Your task to perform on an android device: Add "sony triple a" to the cart on newegg, then select checkout. Image 0: 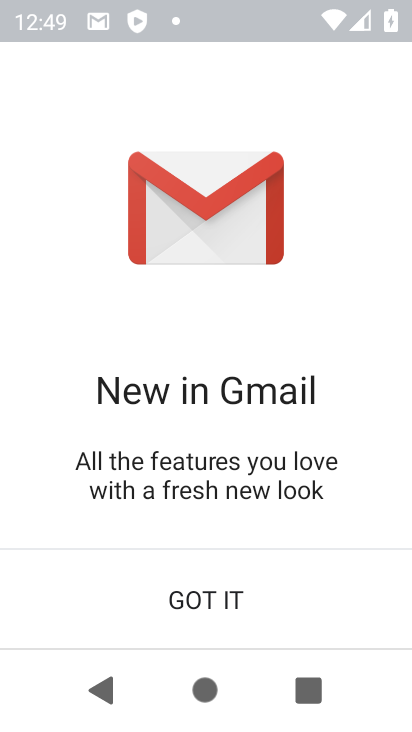
Step 0: click (0, 0)
Your task to perform on an android device: Add "sony triple a" to the cart on newegg, then select checkout. Image 1: 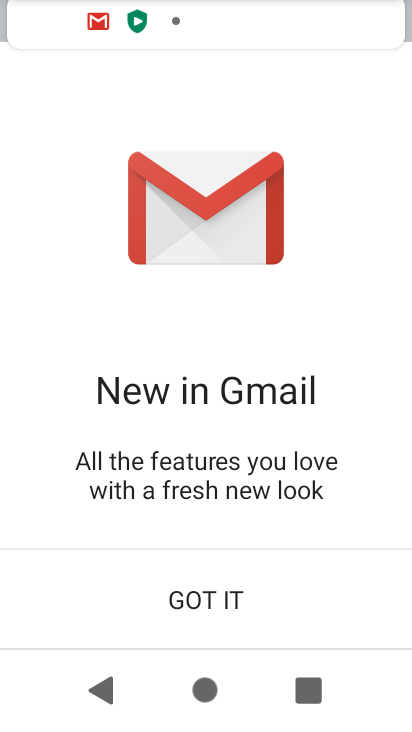
Step 1: press home button
Your task to perform on an android device: Add "sony triple a" to the cart on newegg, then select checkout. Image 2: 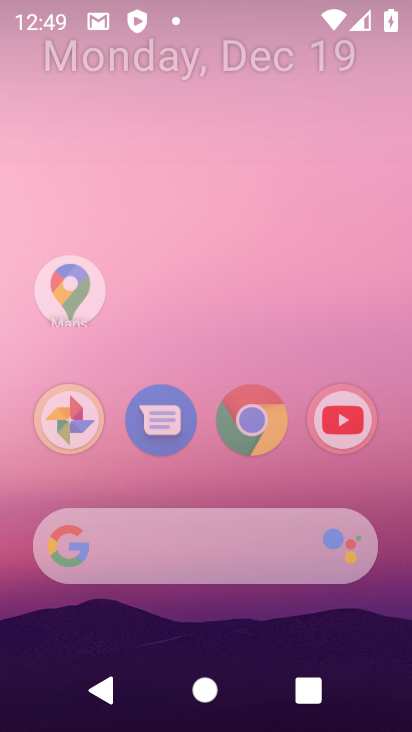
Step 2: drag from (0, 0) to (338, 419)
Your task to perform on an android device: Add "sony triple a" to the cart on newegg, then select checkout. Image 3: 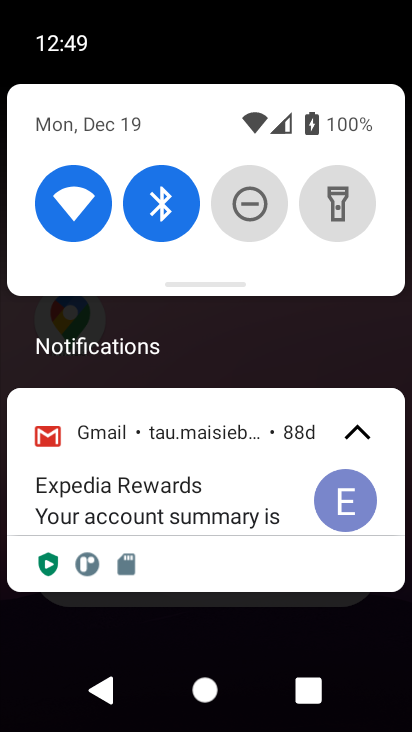
Step 3: click (110, 679)
Your task to perform on an android device: Add "sony triple a" to the cart on newegg, then select checkout. Image 4: 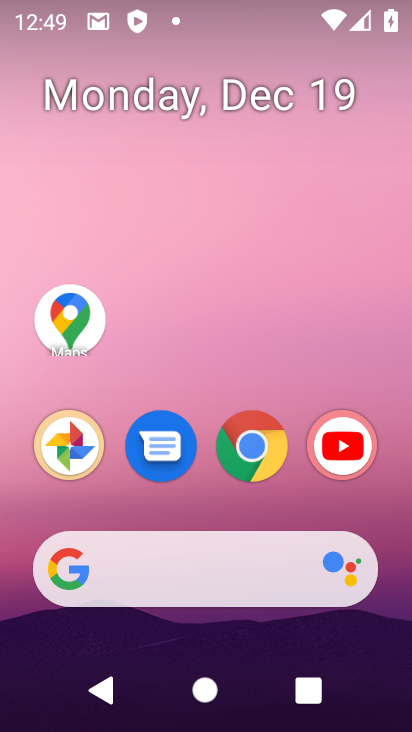
Step 4: click (242, 436)
Your task to perform on an android device: Add "sony triple a" to the cart on newegg, then select checkout. Image 5: 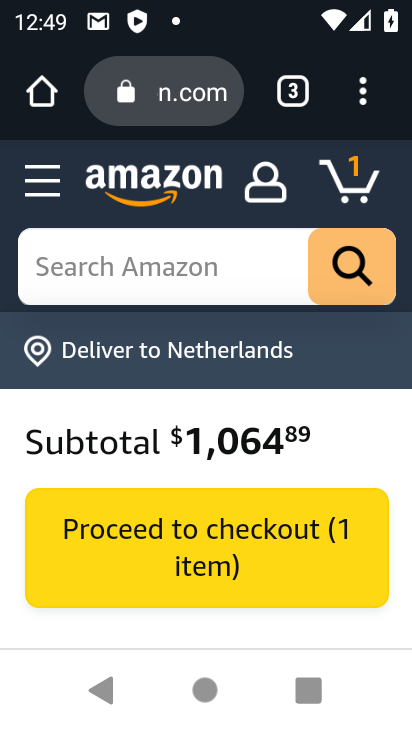
Step 5: click (223, 253)
Your task to perform on an android device: Add "sony triple a" to the cart on newegg, then select checkout. Image 6: 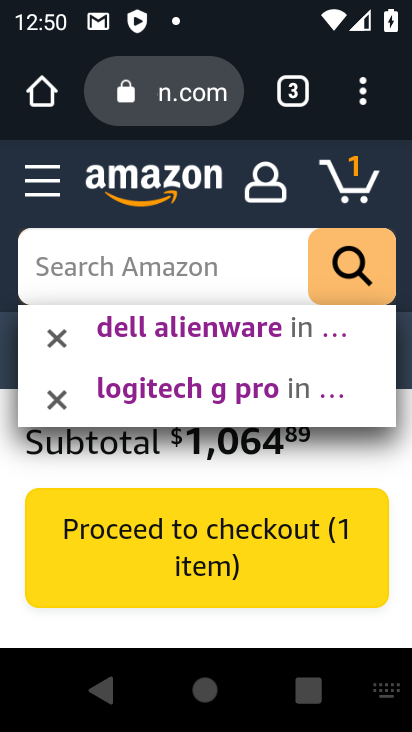
Step 6: click (224, 317)
Your task to perform on an android device: Add "sony triple a" to the cart on newegg, then select checkout. Image 7: 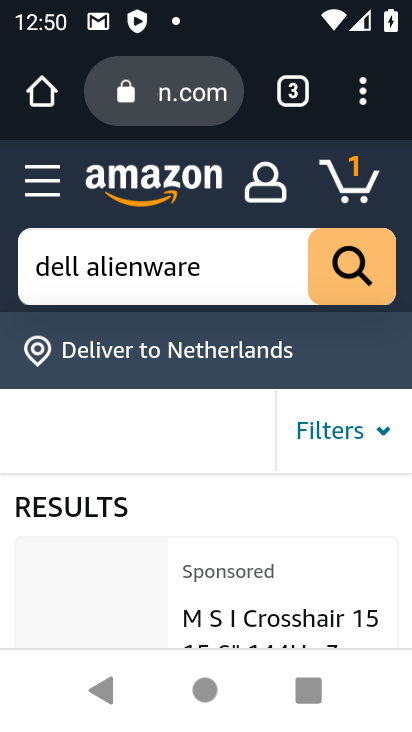
Step 7: drag from (174, 512) to (174, 200)
Your task to perform on an android device: Add "sony triple a" to the cart on newegg, then select checkout. Image 8: 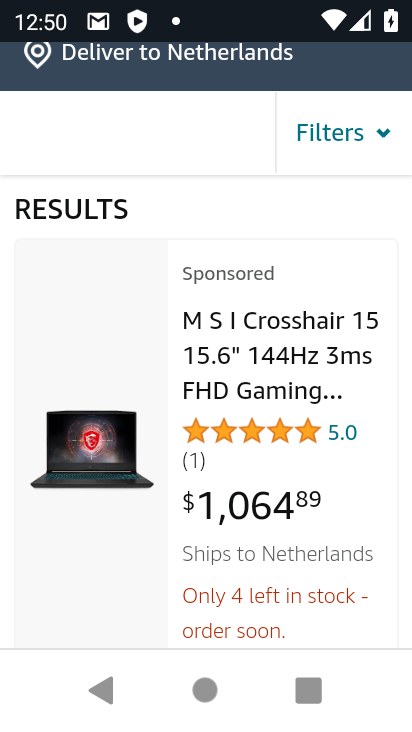
Step 8: click (255, 343)
Your task to perform on an android device: Add "sony triple a" to the cart on newegg, then select checkout. Image 9: 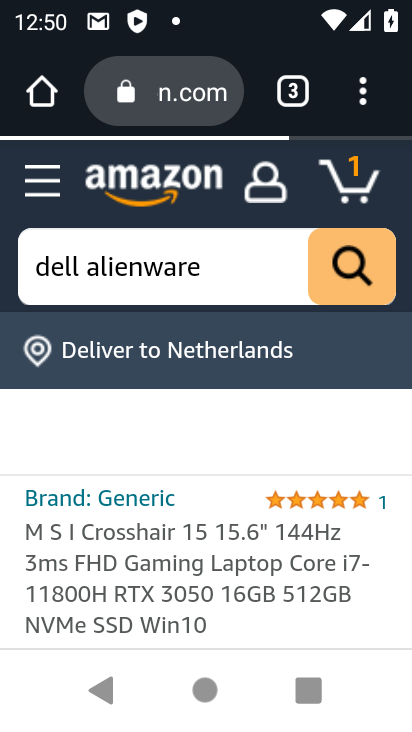
Step 9: drag from (197, 580) to (253, 128)
Your task to perform on an android device: Add "sony triple a" to the cart on newegg, then select checkout. Image 10: 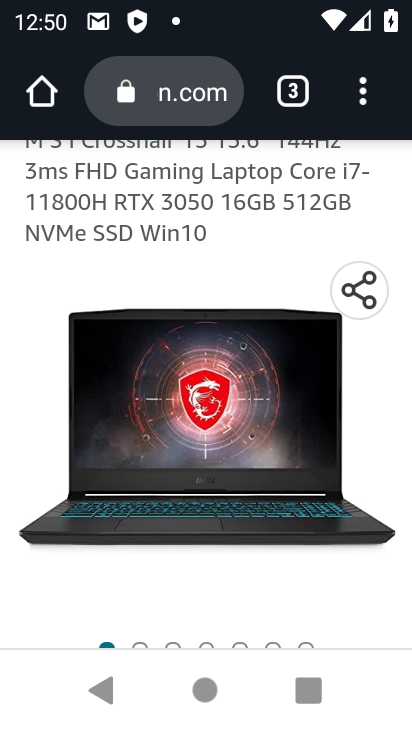
Step 10: drag from (279, 548) to (284, 116)
Your task to perform on an android device: Add "sony triple a" to the cart on newegg, then select checkout. Image 11: 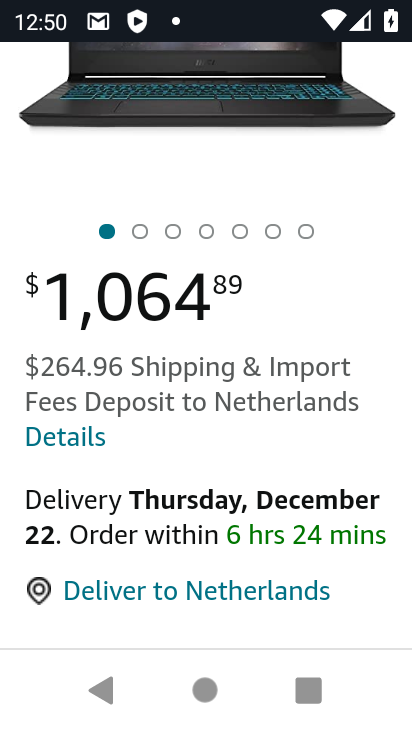
Step 11: drag from (270, 593) to (304, 137)
Your task to perform on an android device: Add "sony triple a" to the cart on newegg, then select checkout. Image 12: 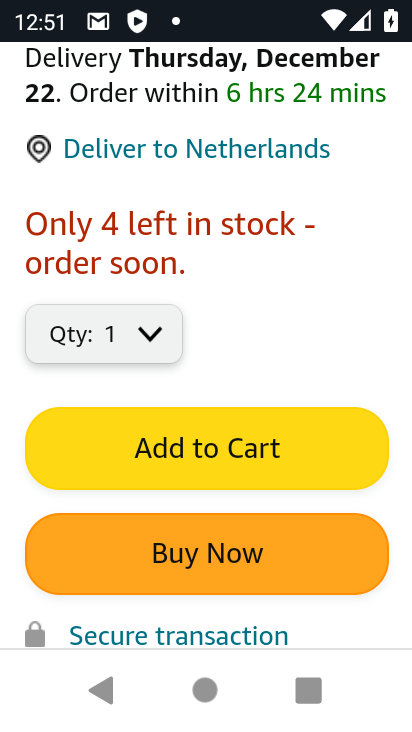
Step 12: click (268, 466)
Your task to perform on an android device: Add "sony triple a" to the cart on newegg, then select checkout. Image 13: 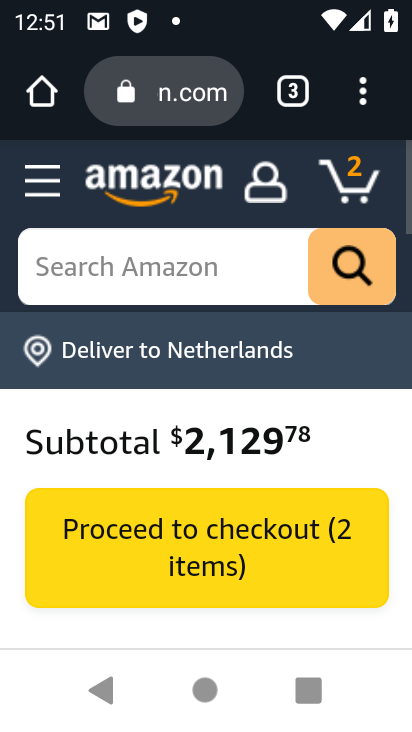
Step 13: task complete